Your task to perform on an android device: Go to network settings Image 0: 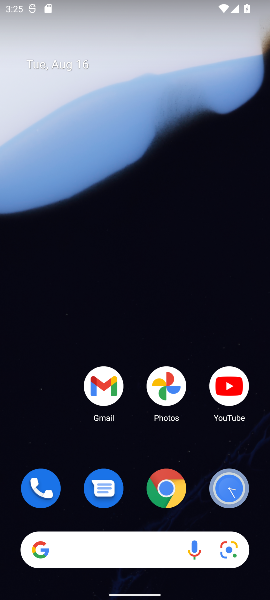
Step 0: press home button
Your task to perform on an android device: Go to network settings Image 1: 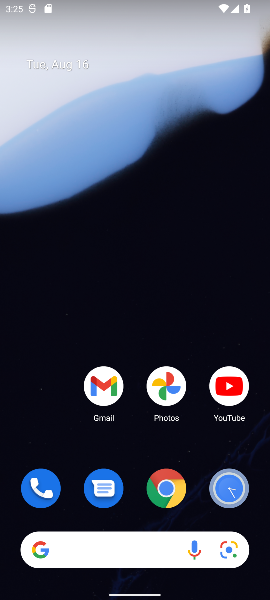
Step 1: drag from (72, 436) to (93, 103)
Your task to perform on an android device: Go to network settings Image 2: 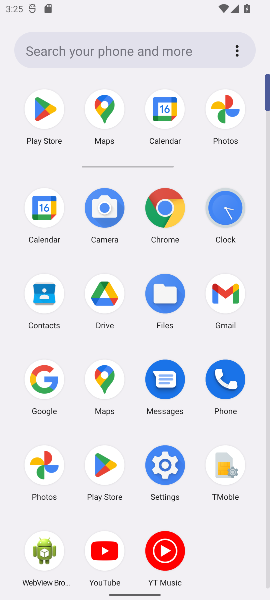
Step 2: click (45, 381)
Your task to perform on an android device: Go to network settings Image 3: 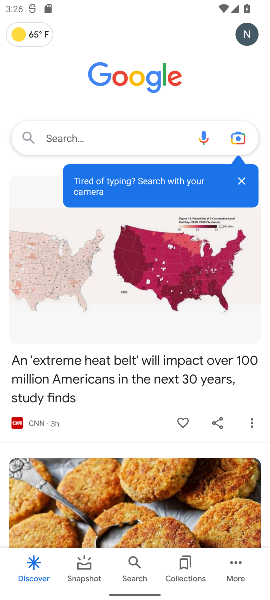
Step 3: press home button
Your task to perform on an android device: Go to network settings Image 4: 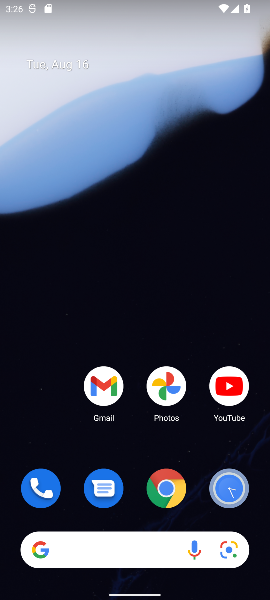
Step 4: drag from (55, 393) to (69, 110)
Your task to perform on an android device: Go to network settings Image 5: 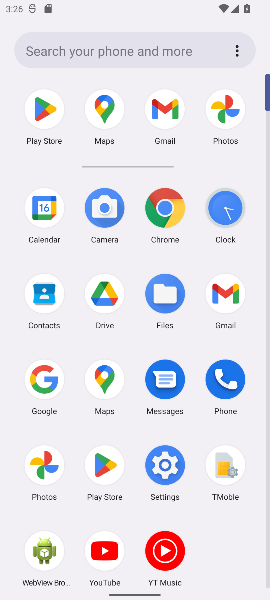
Step 5: click (163, 463)
Your task to perform on an android device: Go to network settings Image 6: 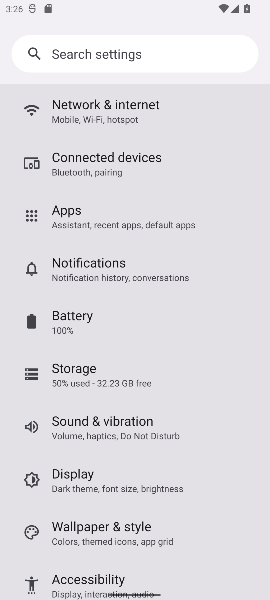
Step 6: drag from (138, 218) to (137, 406)
Your task to perform on an android device: Go to network settings Image 7: 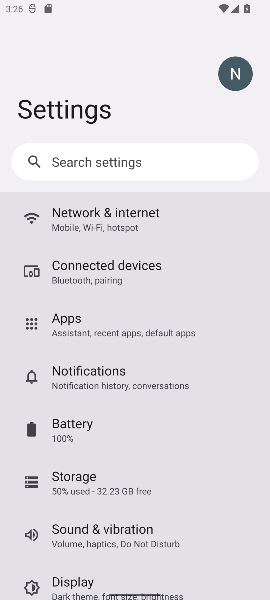
Step 7: click (150, 228)
Your task to perform on an android device: Go to network settings Image 8: 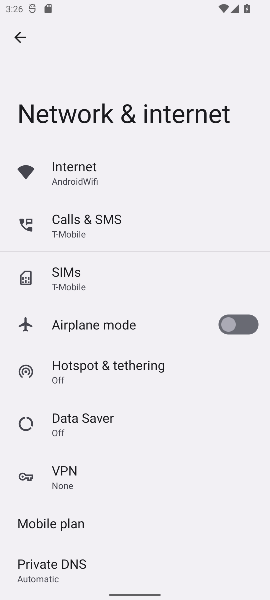
Step 8: task complete